Your task to perform on an android device: Do I have any events today? Image 0: 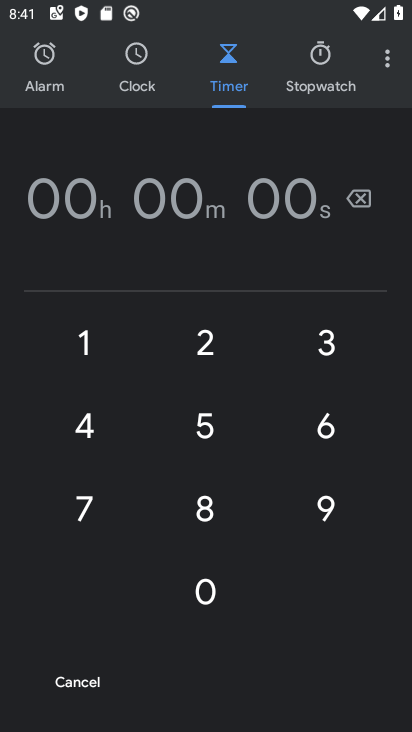
Step 0: press home button
Your task to perform on an android device: Do I have any events today? Image 1: 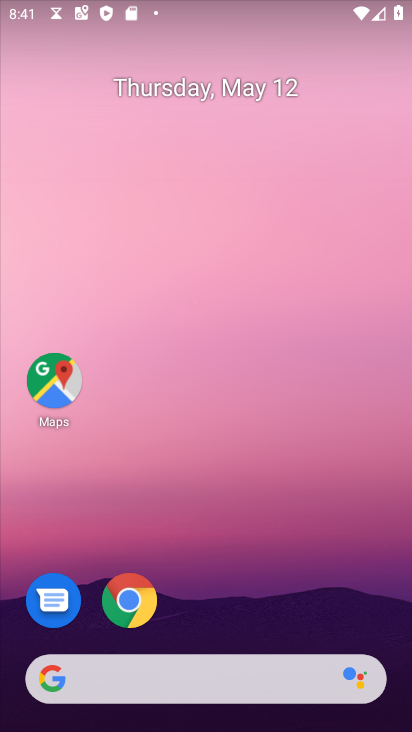
Step 1: drag from (261, 603) to (222, 245)
Your task to perform on an android device: Do I have any events today? Image 2: 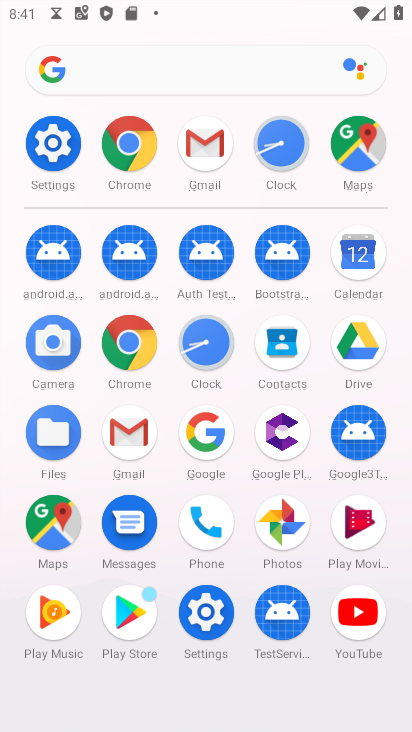
Step 2: click (363, 288)
Your task to perform on an android device: Do I have any events today? Image 3: 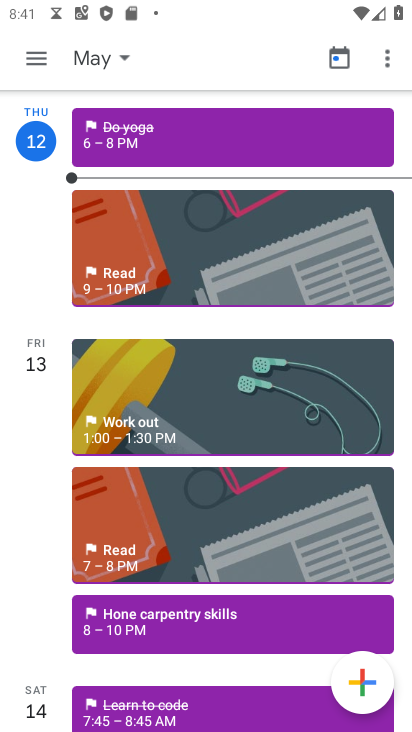
Step 3: task complete